Your task to perform on an android device: turn off location history Image 0: 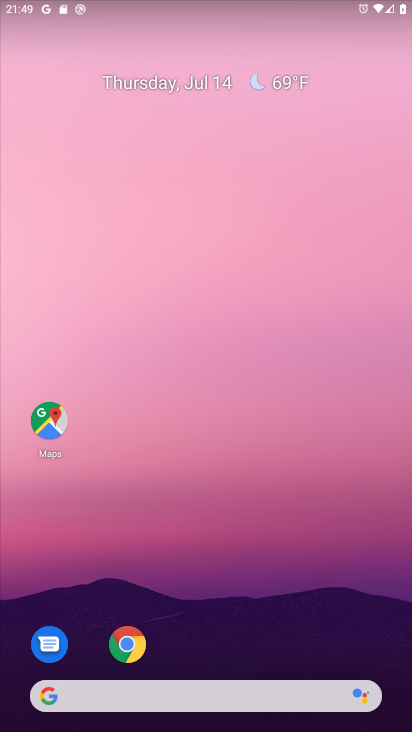
Step 0: drag from (220, 664) to (217, 166)
Your task to perform on an android device: turn off location history Image 1: 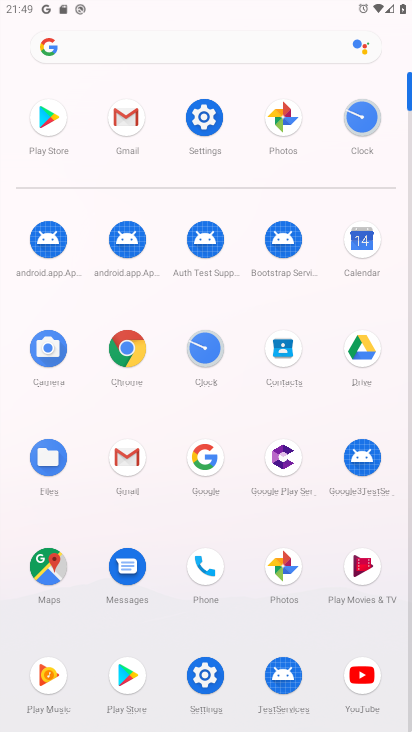
Step 1: click (202, 130)
Your task to perform on an android device: turn off location history Image 2: 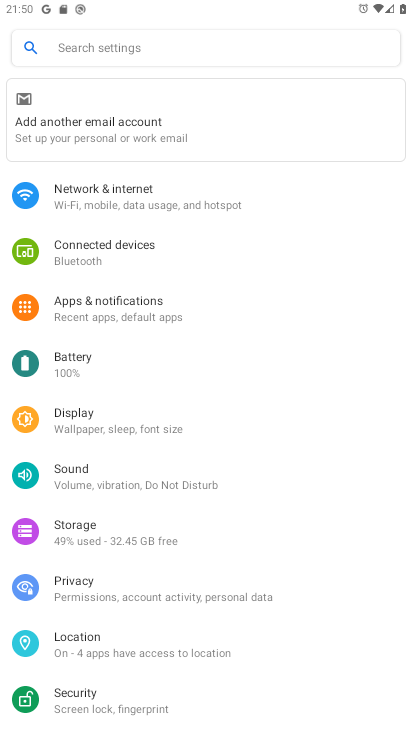
Step 2: click (140, 646)
Your task to perform on an android device: turn off location history Image 3: 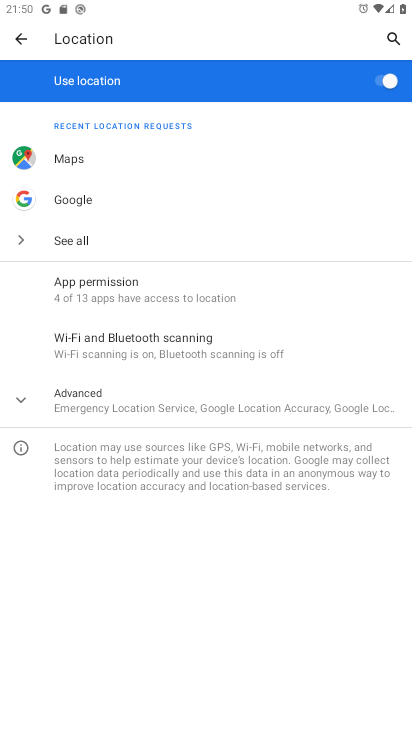
Step 3: click (158, 398)
Your task to perform on an android device: turn off location history Image 4: 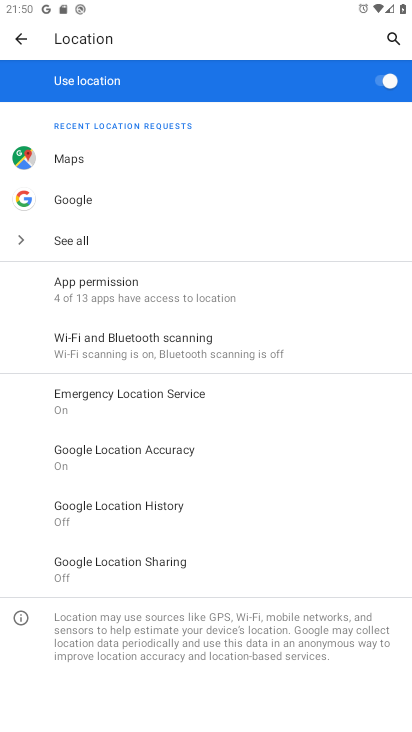
Step 4: task complete